Your task to perform on an android device: open app "Gboard" (install if not already installed) Image 0: 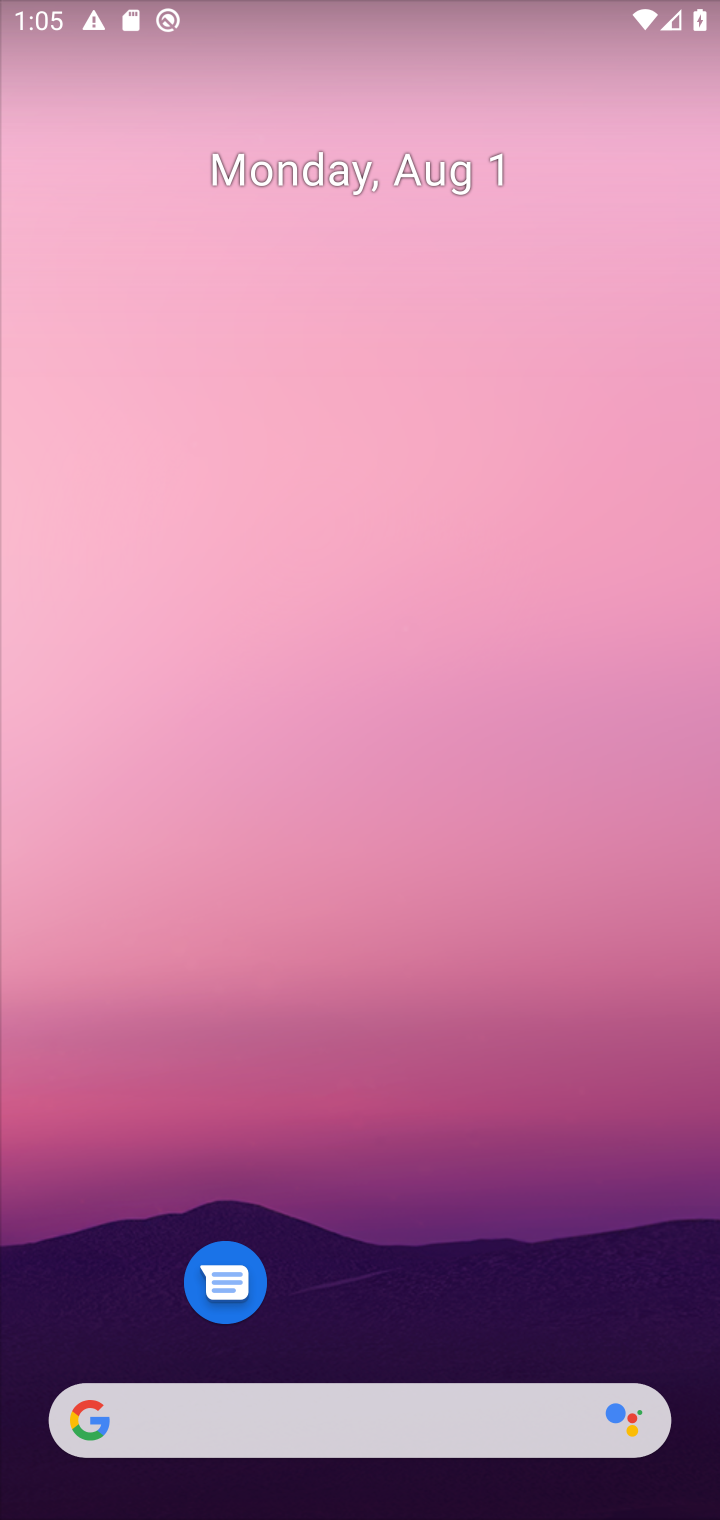
Step 0: drag from (372, 1327) to (601, 1329)
Your task to perform on an android device: open app "Gboard" (install if not already installed) Image 1: 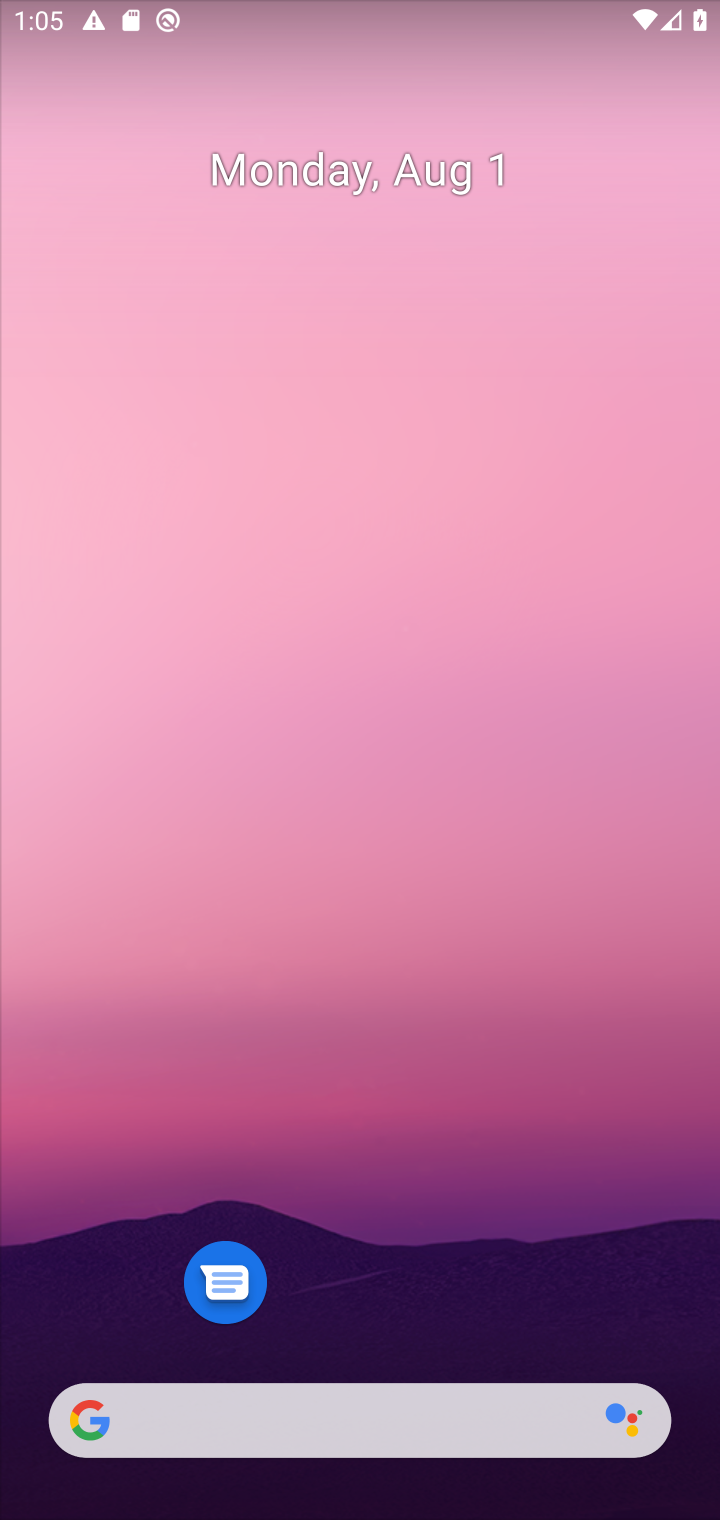
Step 1: click (492, 1384)
Your task to perform on an android device: open app "Gboard" (install if not already installed) Image 2: 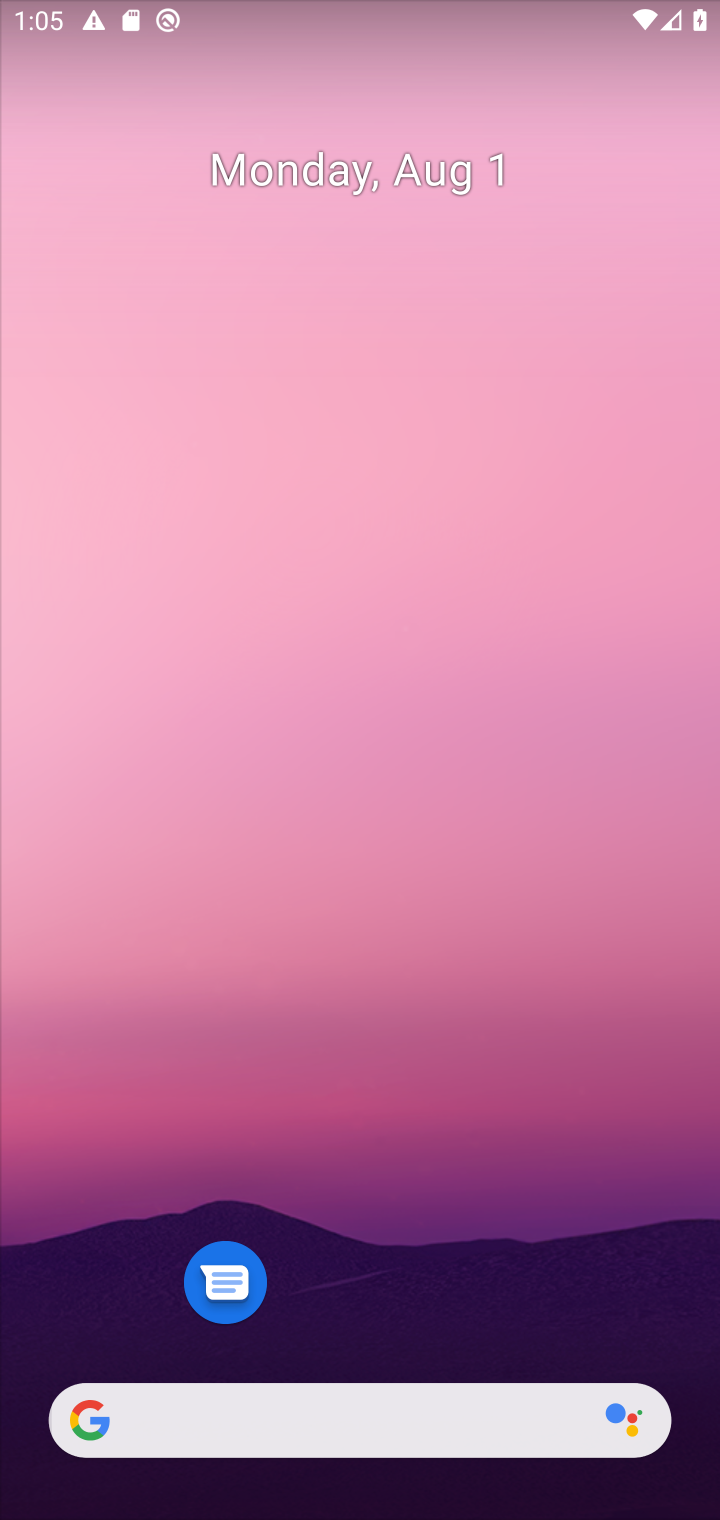
Step 2: drag from (492, 1385) to (377, 150)
Your task to perform on an android device: open app "Gboard" (install if not already installed) Image 3: 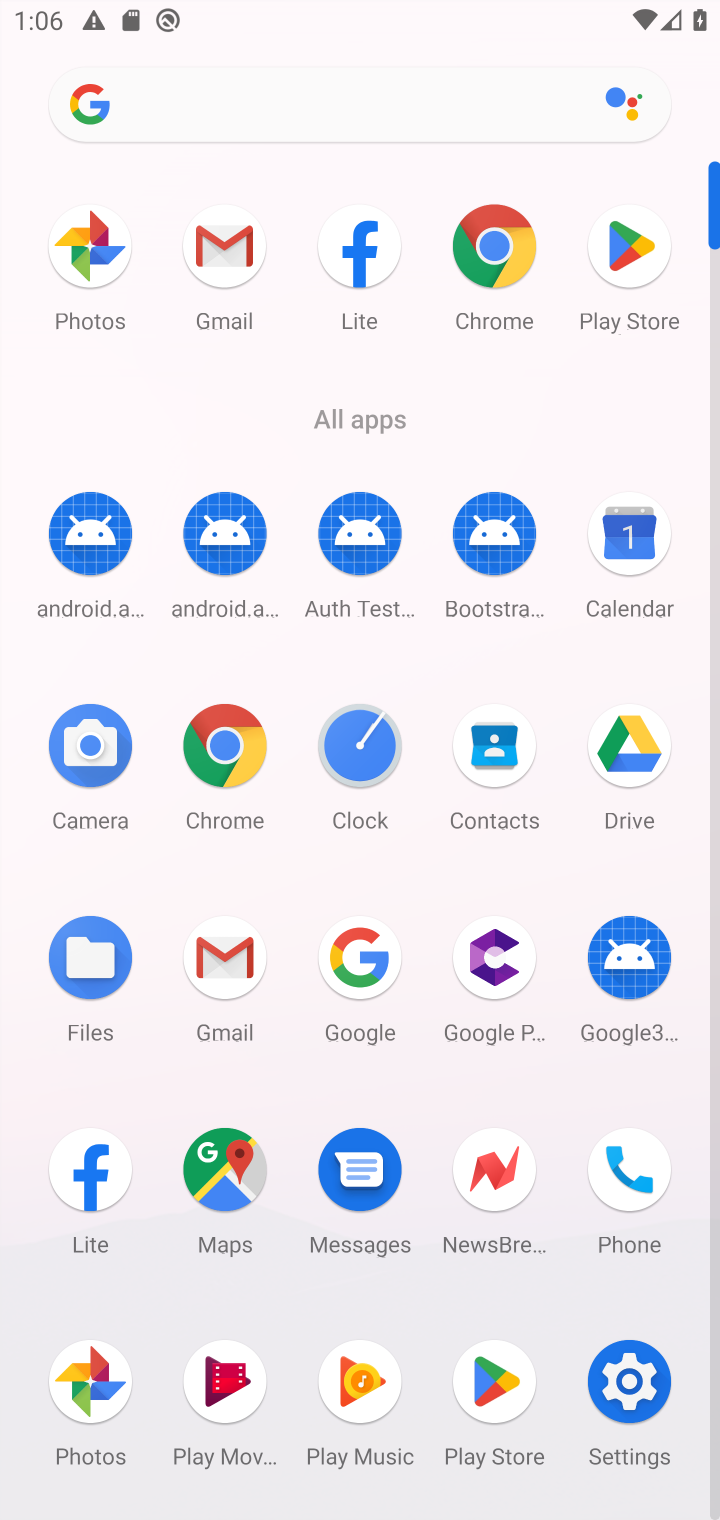
Step 3: click (494, 1365)
Your task to perform on an android device: open app "Gboard" (install if not already installed) Image 4: 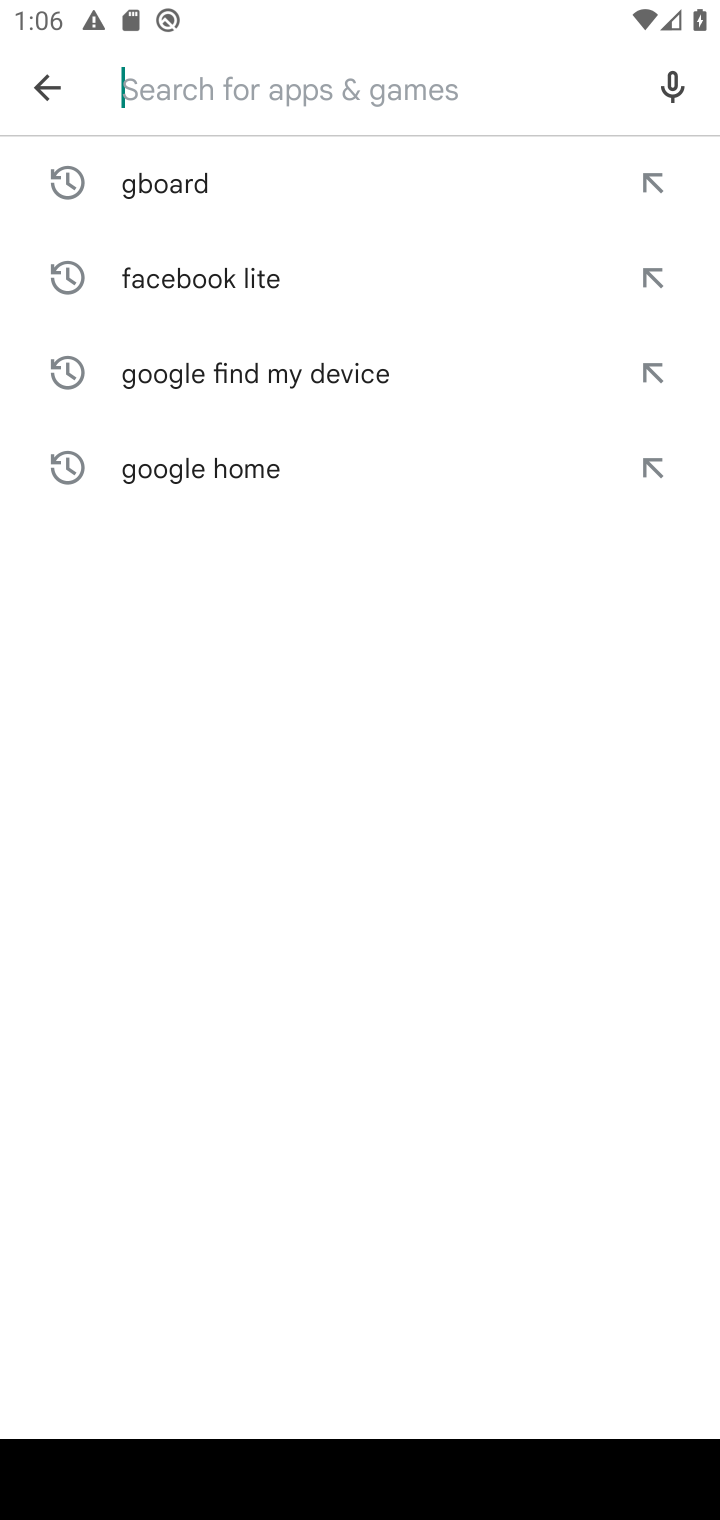
Step 4: click (118, 210)
Your task to perform on an android device: open app "Gboard" (install if not already installed) Image 5: 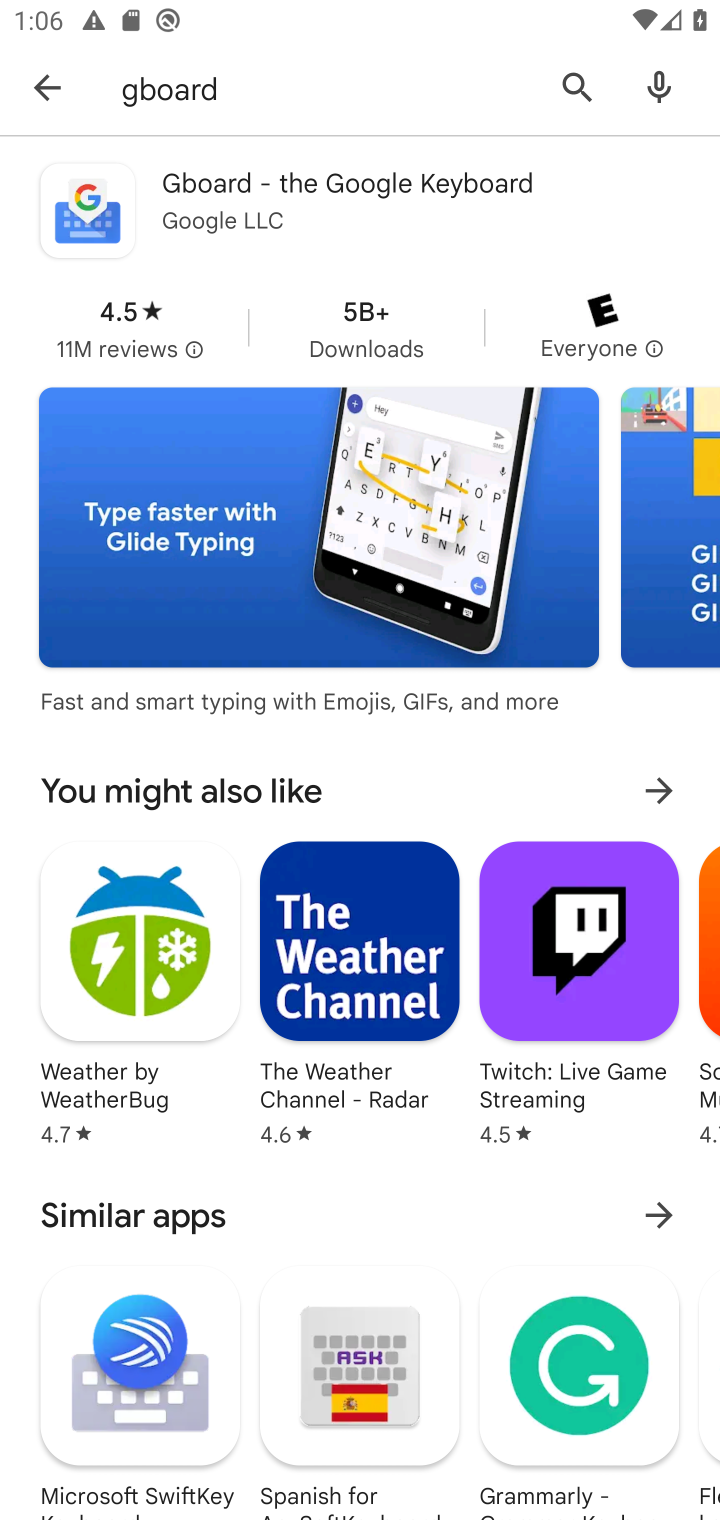
Step 5: click (112, 203)
Your task to perform on an android device: open app "Gboard" (install if not already installed) Image 6: 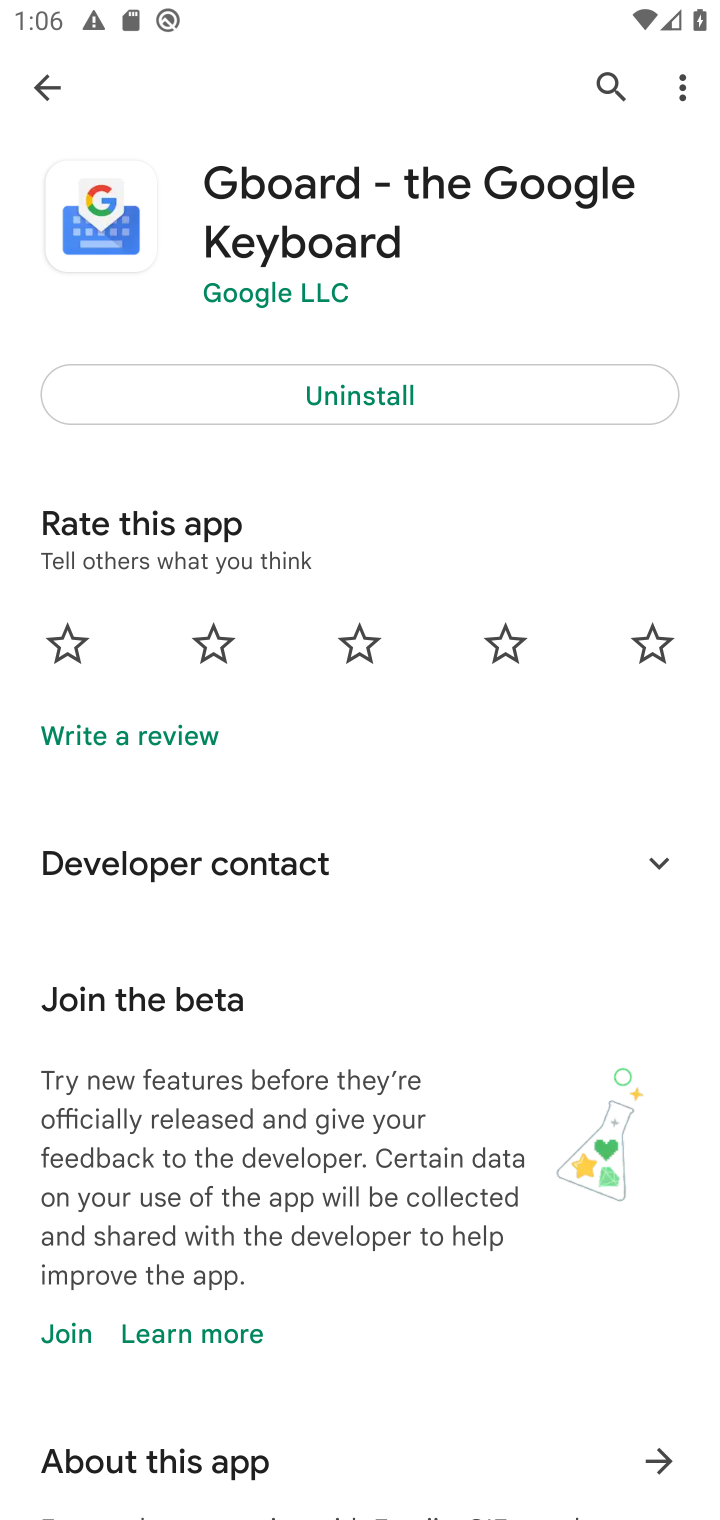
Step 6: click (135, 229)
Your task to perform on an android device: open app "Gboard" (install if not already installed) Image 7: 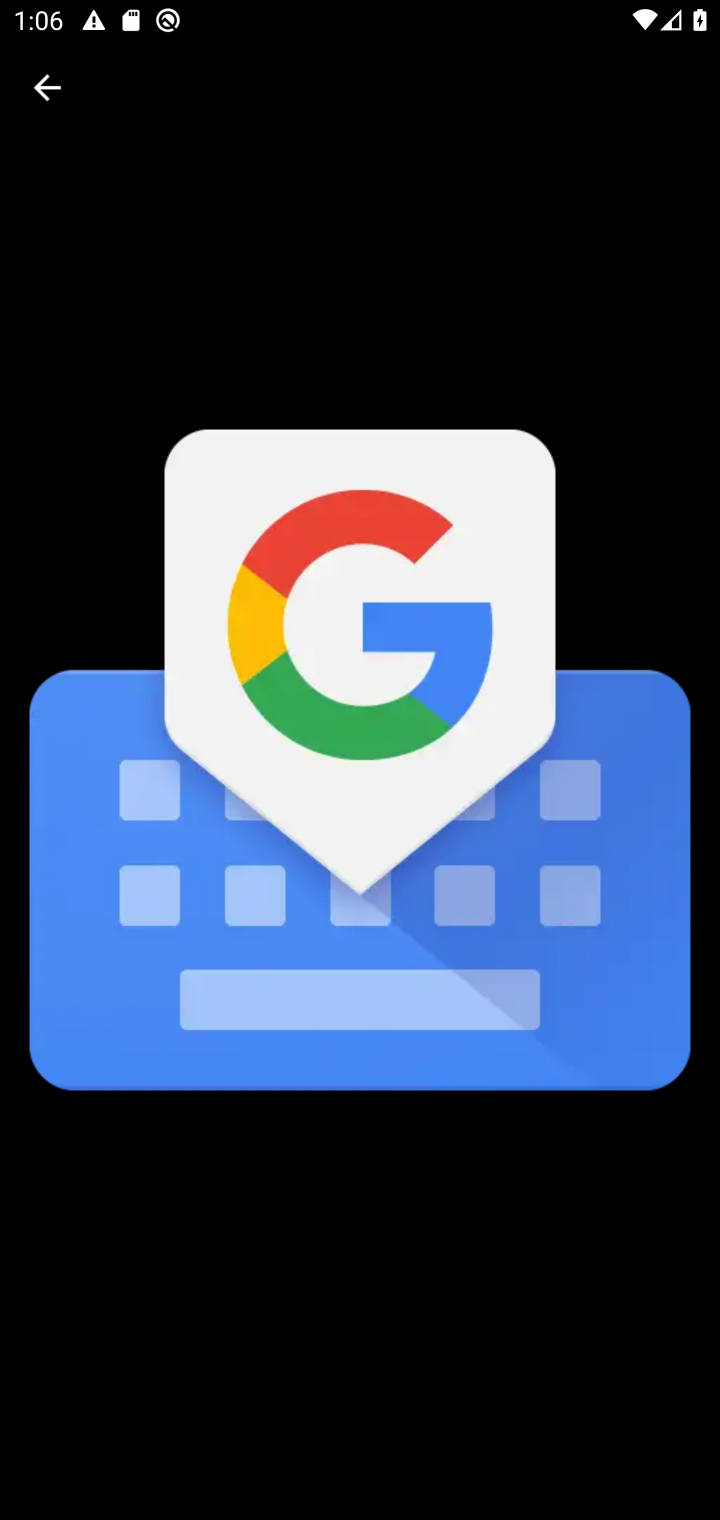
Step 7: click (459, 1017)
Your task to perform on an android device: open app "Gboard" (install if not already installed) Image 8: 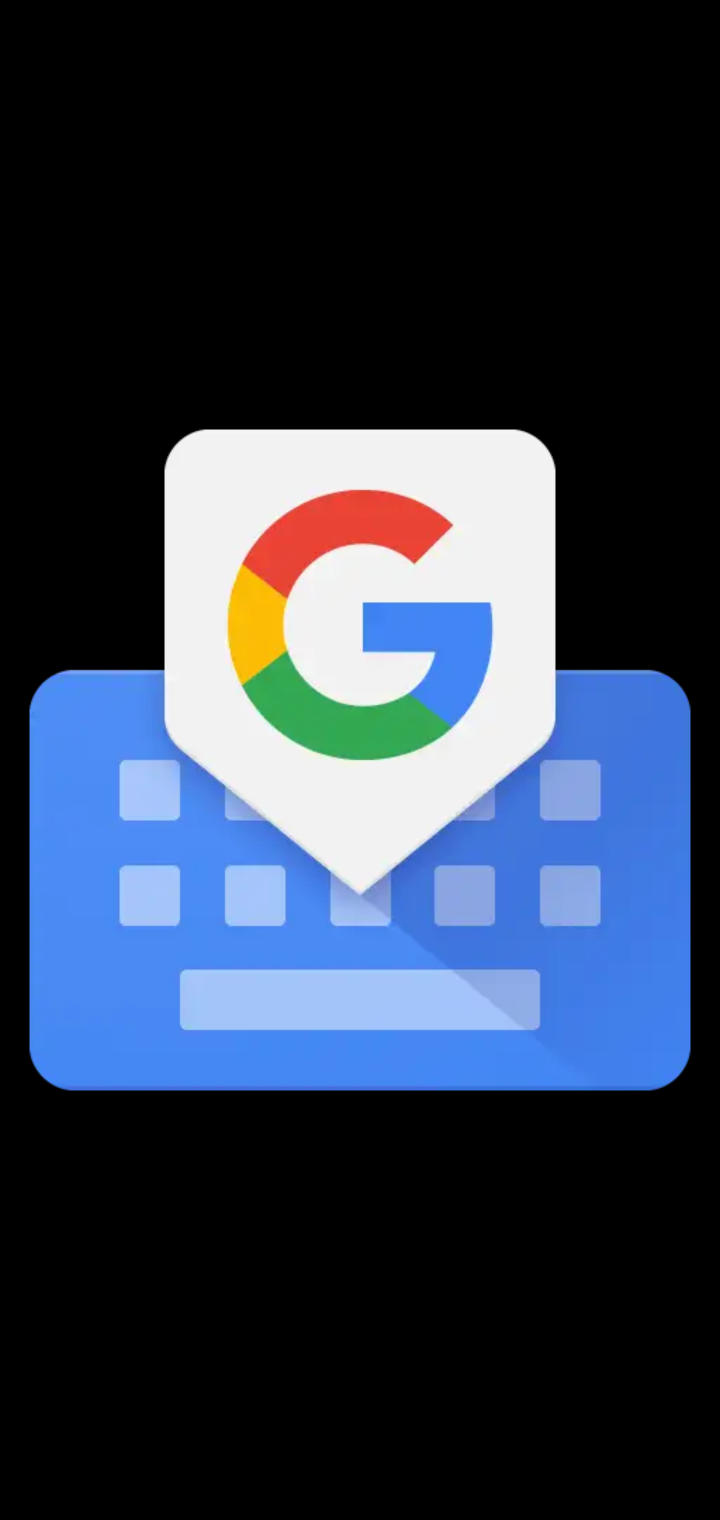
Step 8: press home button
Your task to perform on an android device: open app "Gboard" (install if not already installed) Image 9: 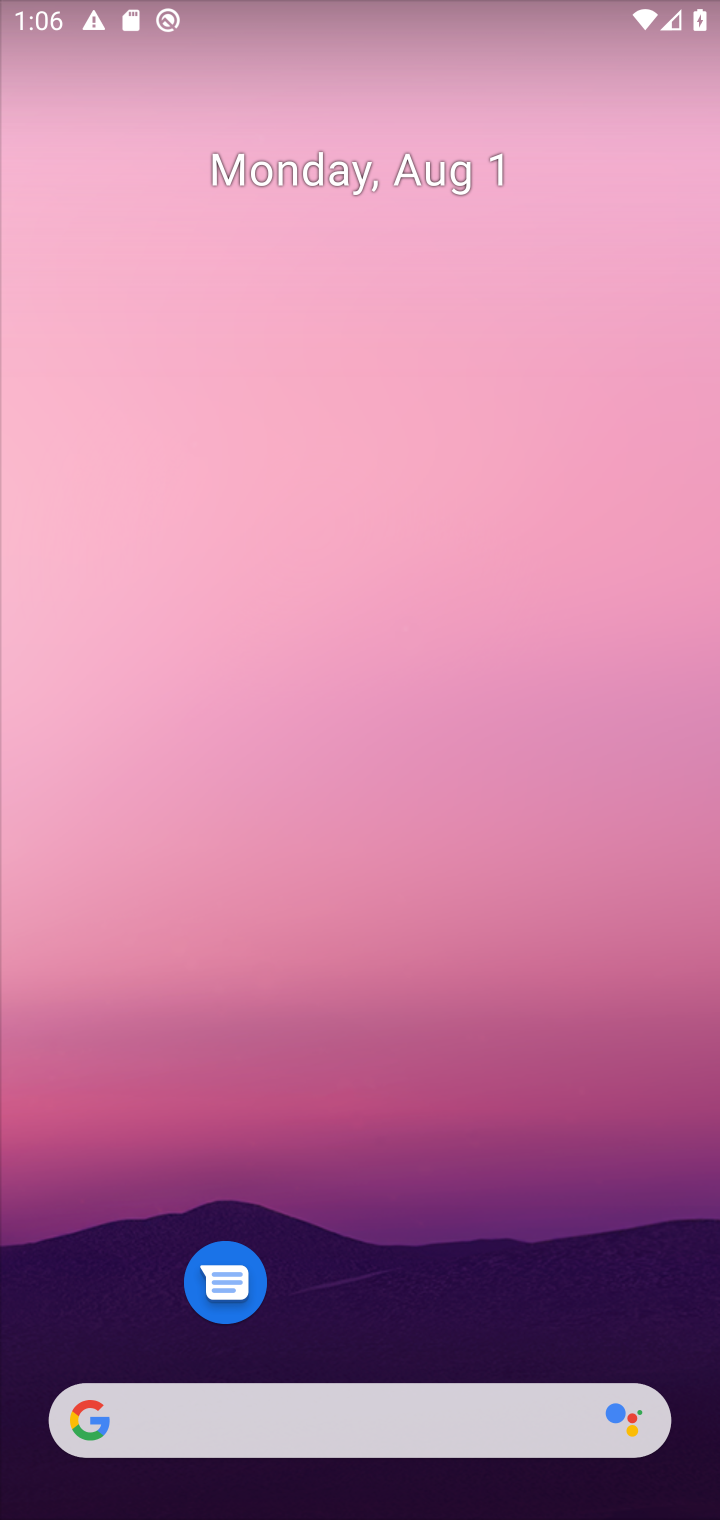
Step 9: drag from (316, 1038) to (284, 284)
Your task to perform on an android device: open app "Gboard" (install if not already installed) Image 10: 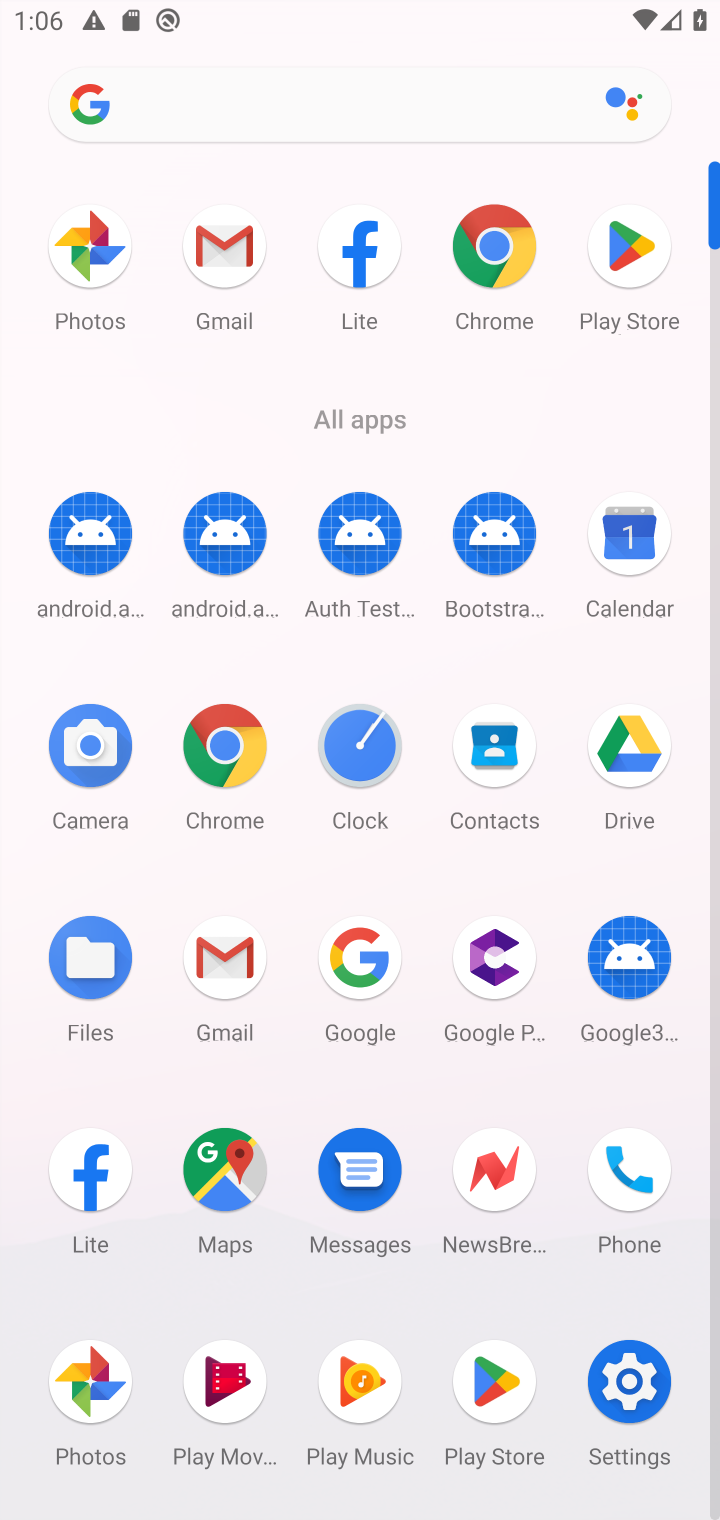
Step 10: click (290, 95)
Your task to perform on an android device: open app "Gboard" (install if not already installed) Image 11: 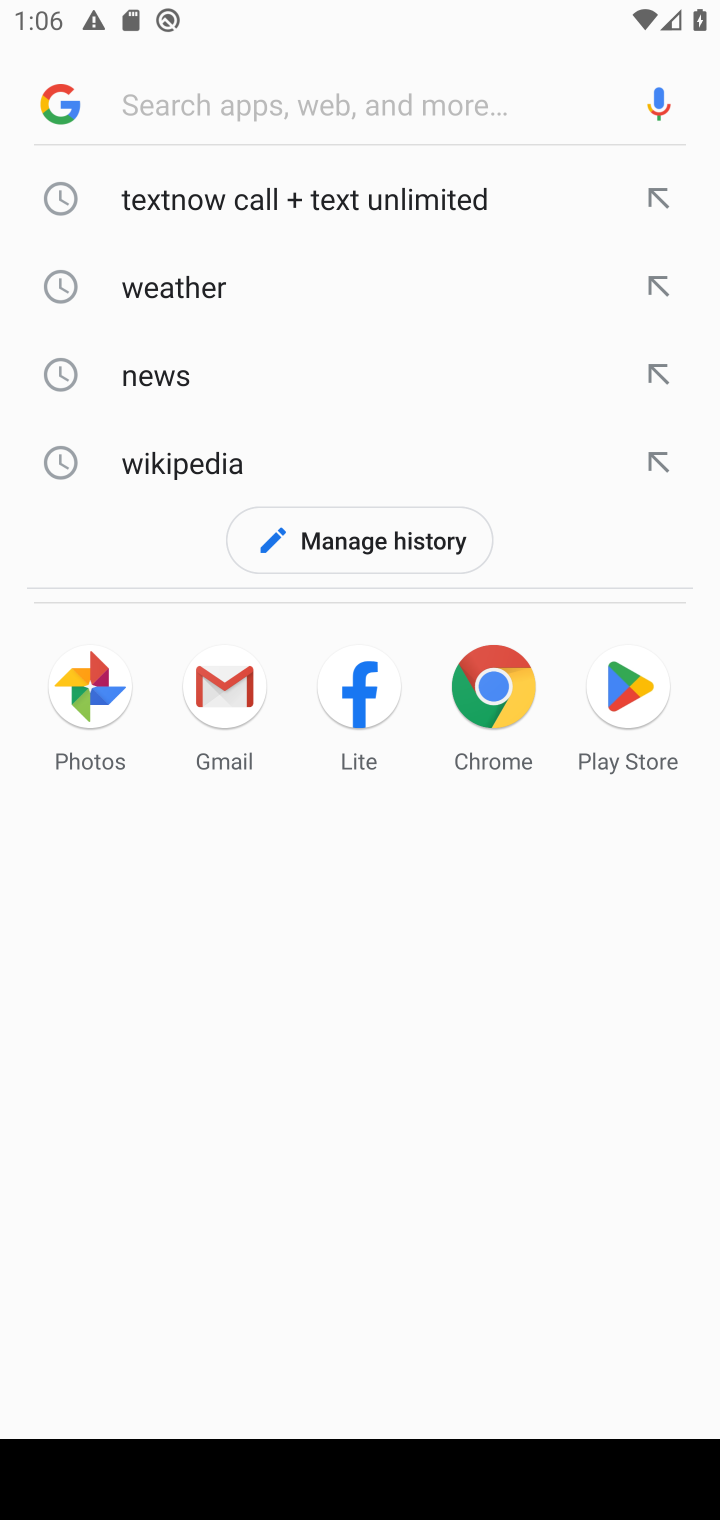
Step 11: type "gboard"
Your task to perform on an android device: open app "Gboard" (install if not already installed) Image 12: 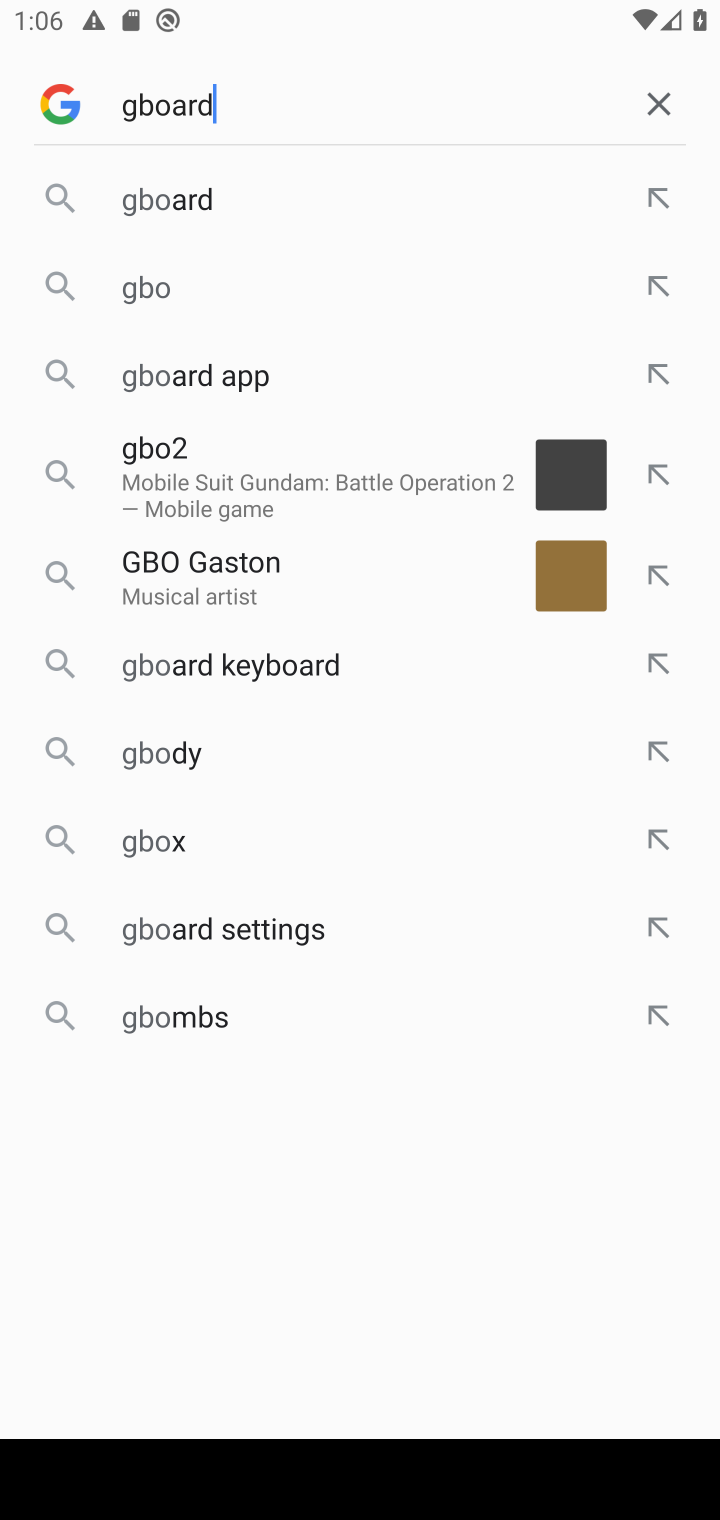
Step 12: type ""
Your task to perform on an android device: open app "Gboard" (install if not already installed) Image 13: 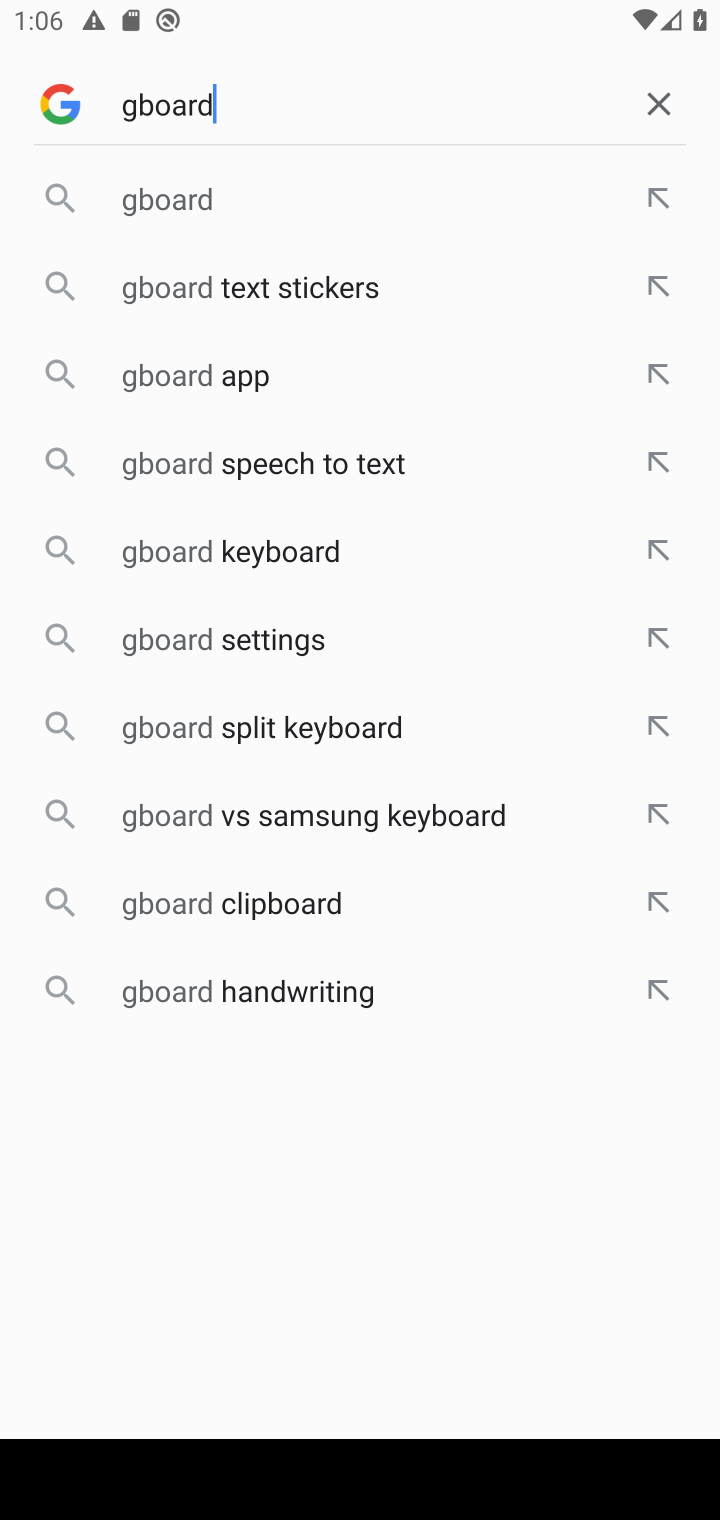
Step 13: click (148, 197)
Your task to perform on an android device: open app "Gboard" (install if not already installed) Image 14: 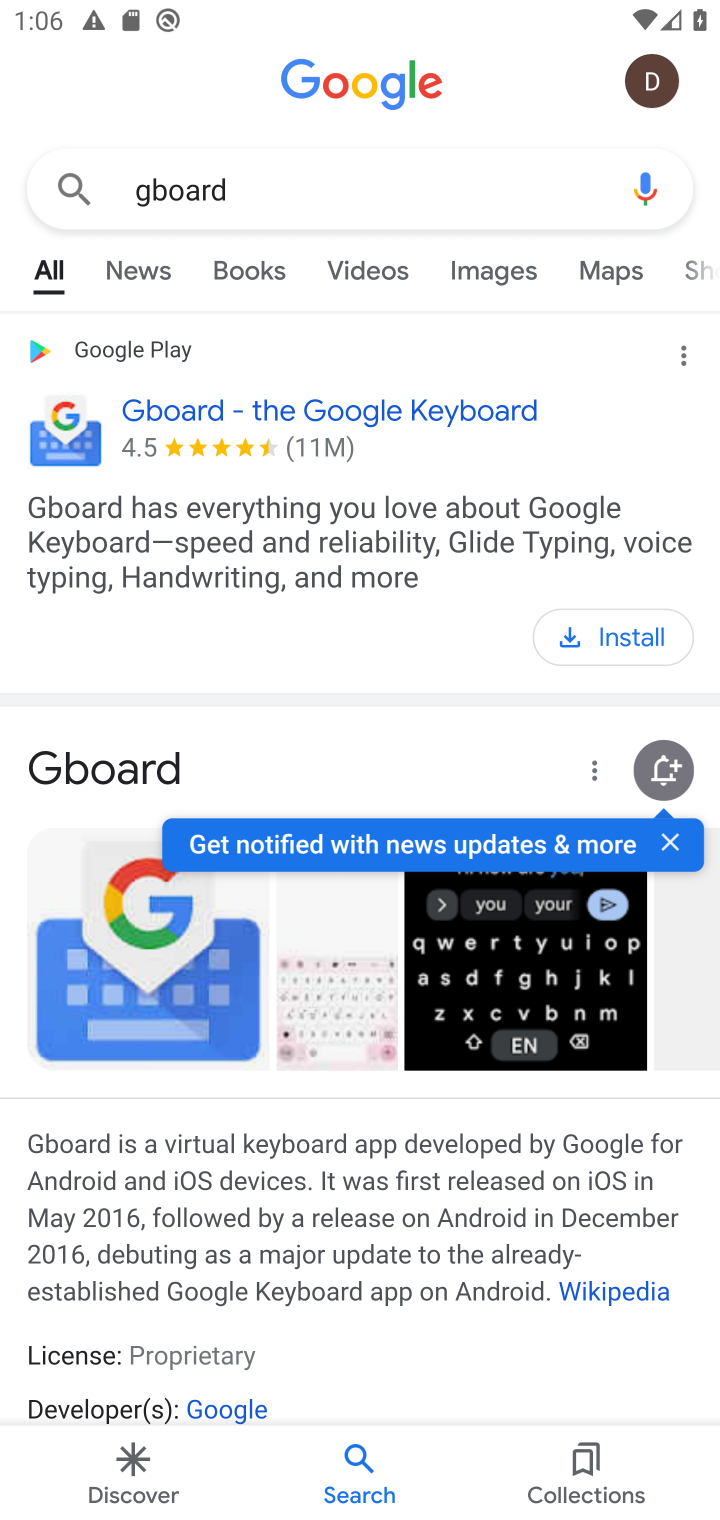
Step 14: click (265, 410)
Your task to perform on an android device: open app "Gboard" (install if not already installed) Image 15: 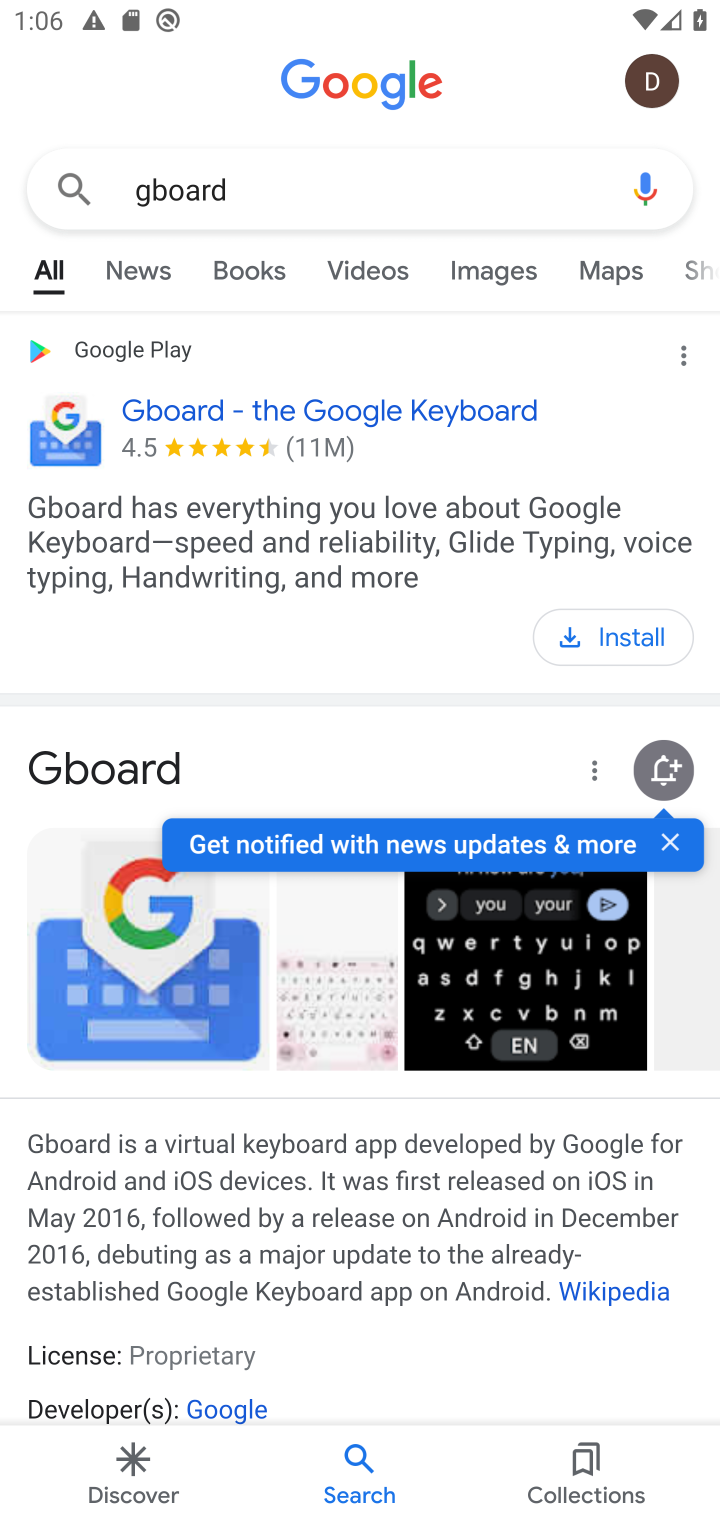
Step 15: task complete